Your task to perform on an android device: change the upload size in google photos Image 0: 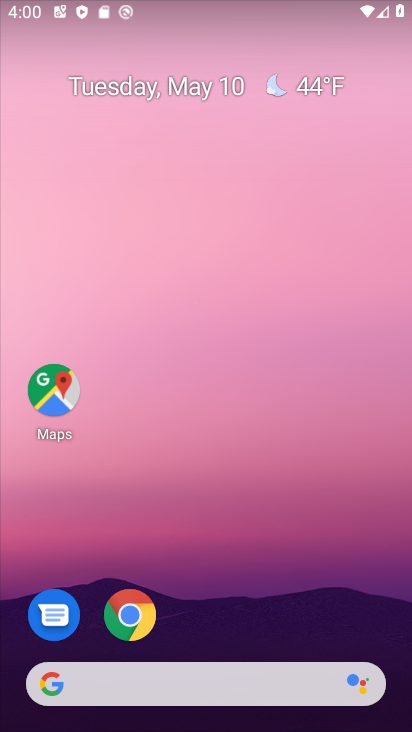
Step 0: drag from (228, 730) to (225, 179)
Your task to perform on an android device: change the upload size in google photos Image 1: 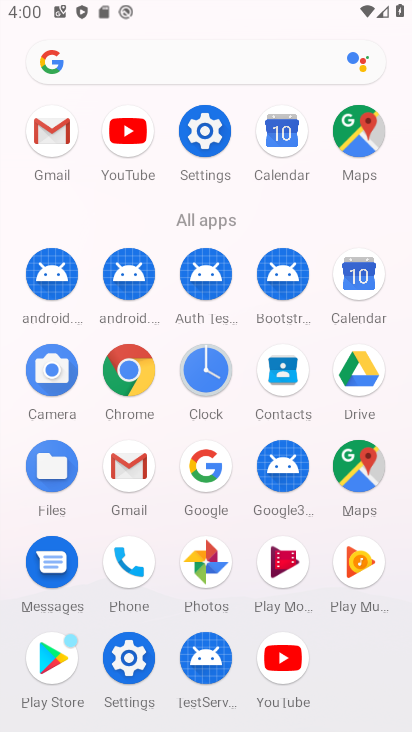
Step 1: click (206, 573)
Your task to perform on an android device: change the upload size in google photos Image 2: 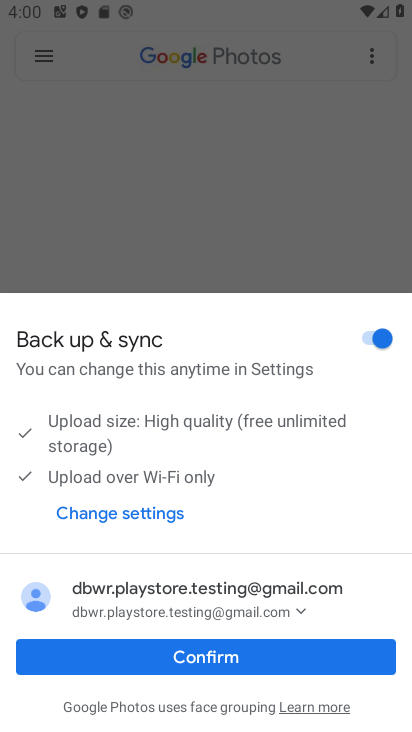
Step 2: click (214, 664)
Your task to perform on an android device: change the upload size in google photos Image 3: 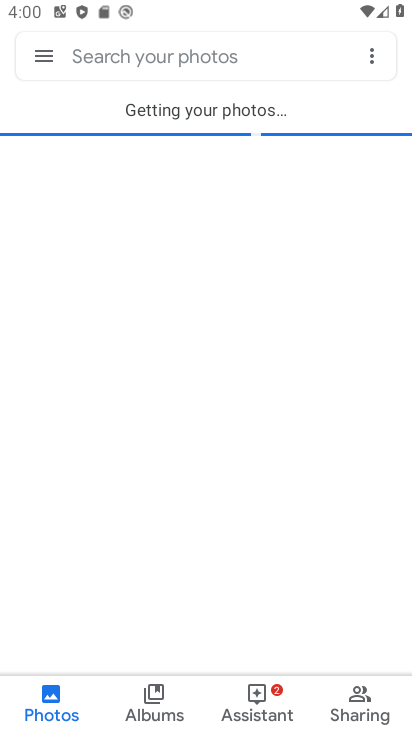
Step 3: click (35, 52)
Your task to perform on an android device: change the upload size in google photos Image 4: 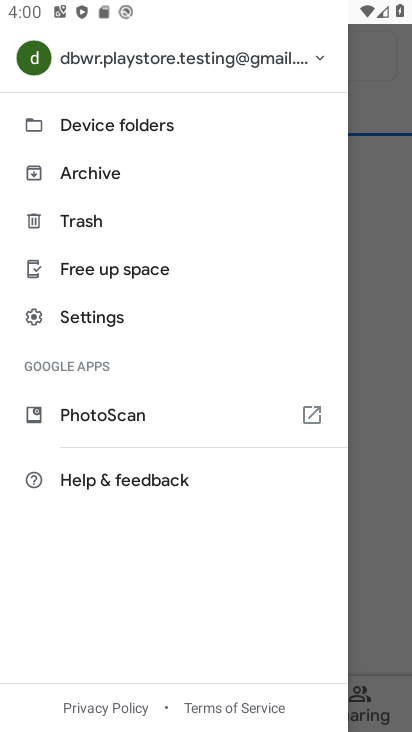
Step 4: click (92, 320)
Your task to perform on an android device: change the upload size in google photos Image 5: 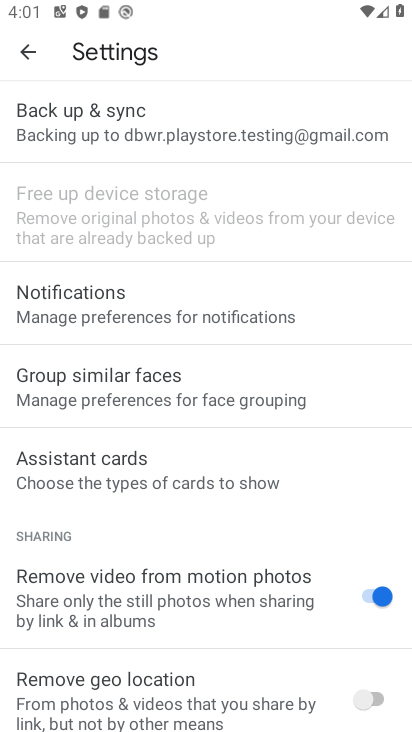
Step 5: click (95, 124)
Your task to perform on an android device: change the upload size in google photos Image 6: 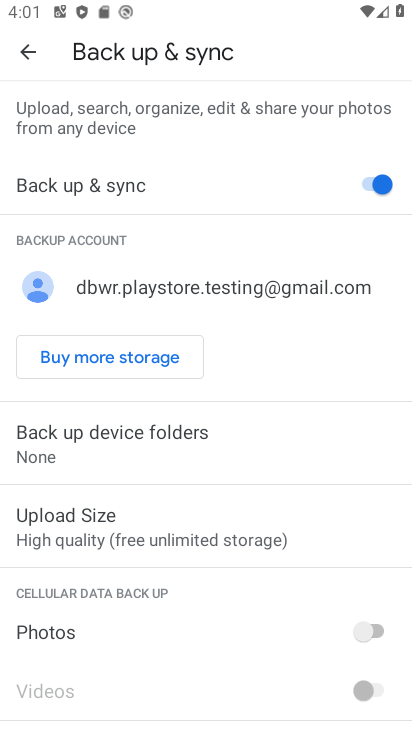
Step 6: click (84, 528)
Your task to perform on an android device: change the upload size in google photos Image 7: 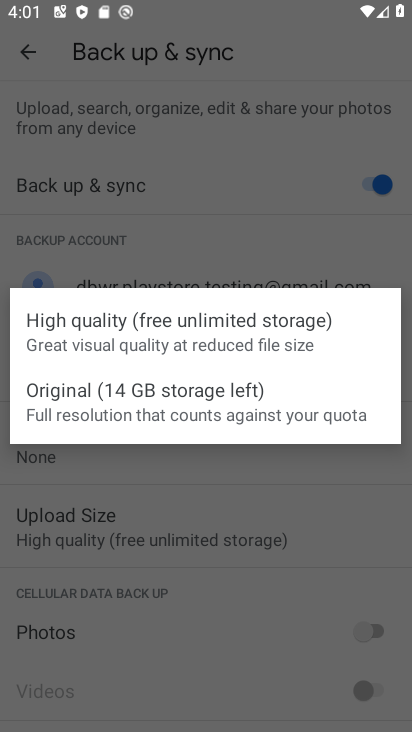
Step 7: click (76, 399)
Your task to perform on an android device: change the upload size in google photos Image 8: 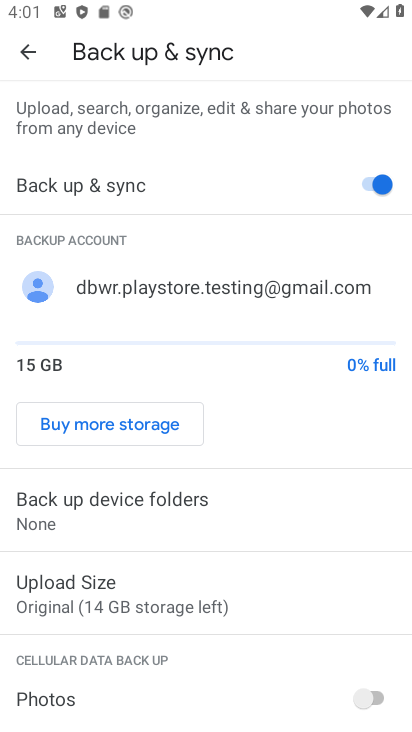
Step 8: task complete